Your task to perform on an android device: Go to CNN.com Image 0: 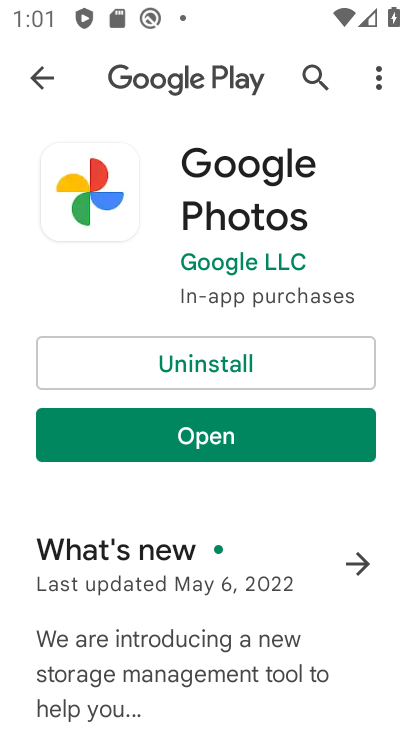
Step 0: press home button
Your task to perform on an android device: Go to CNN.com Image 1: 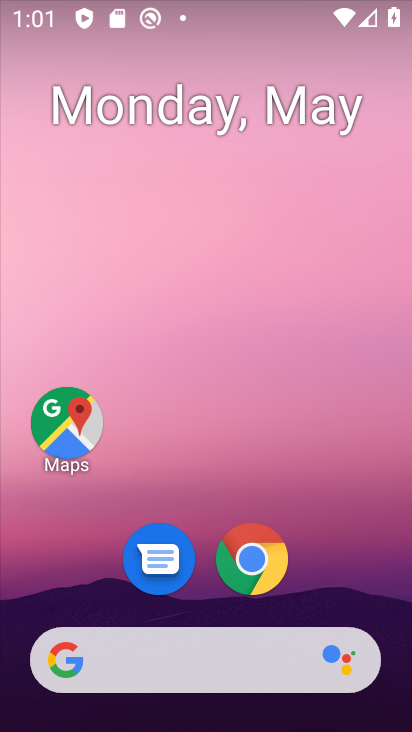
Step 1: click (133, 661)
Your task to perform on an android device: Go to CNN.com Image 2: 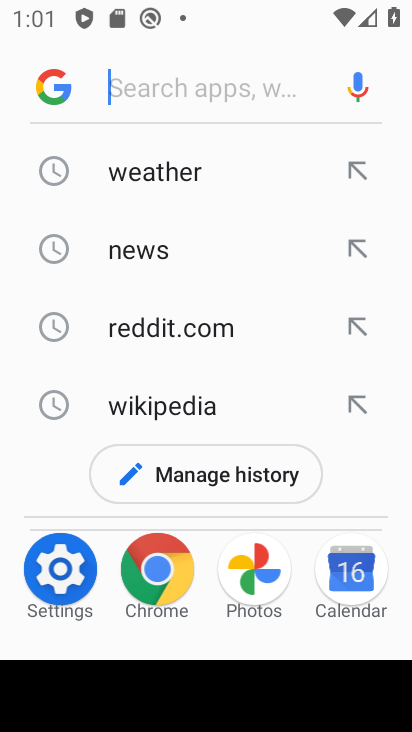
Step 2: type "cnn.com"
Your task to perform on an android device: Go to CNN.com Image 3: 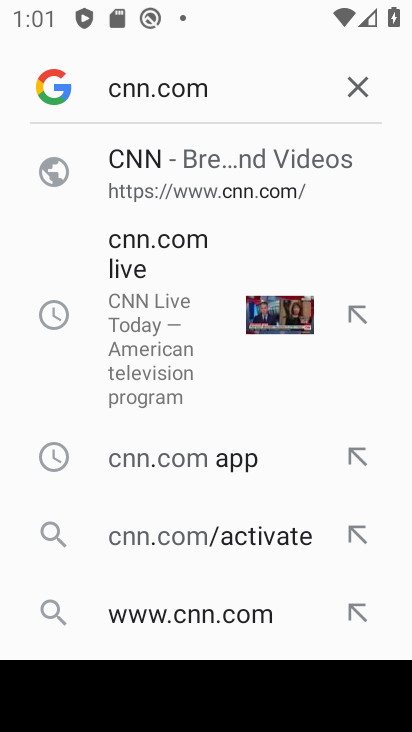
Step 3: click (284, 184)
Your task to perform on an android device: Go to CNN.com Image 4: 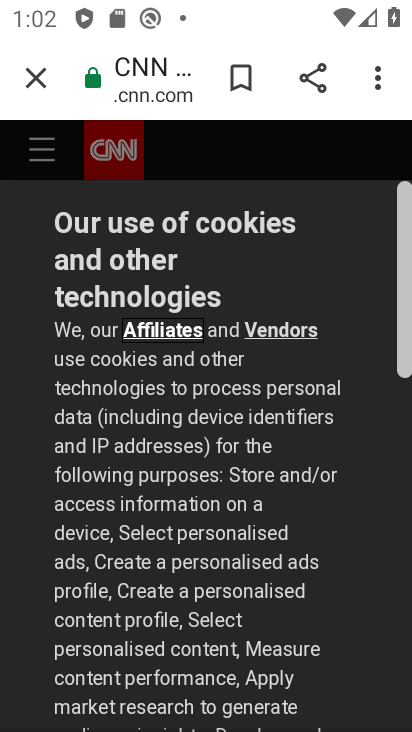
Step 4: task complete